Your task to perform on an android device: Open the stopwatch Image 0: 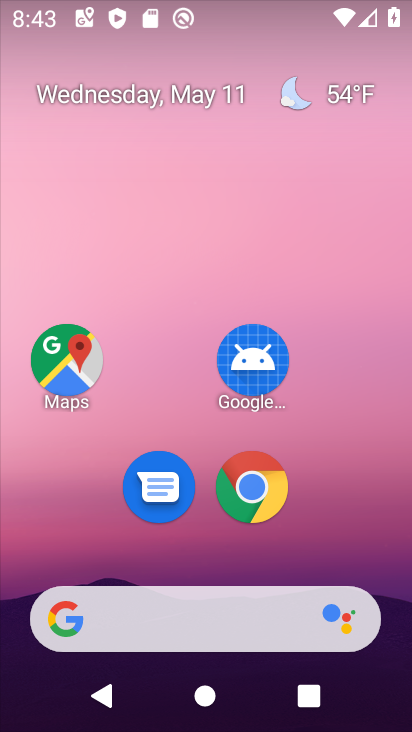
Step 0: drag from (73, 570) to (161, 133)
Your task to perform on an android device: Open the stopwatch Image 1: 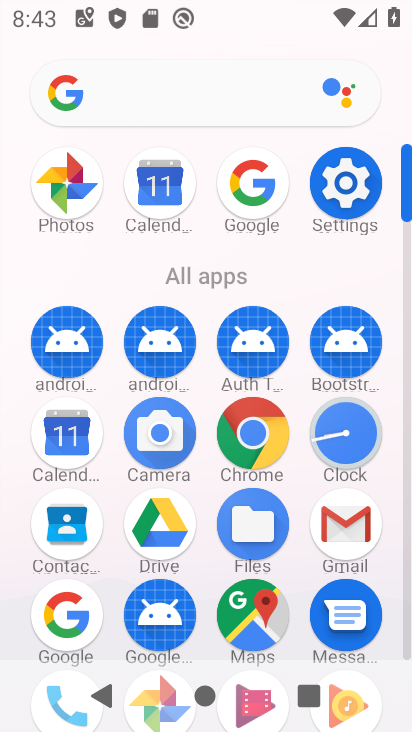
Step 1: click (357, 435)
Your task to perform on an android device: Open the stopwatch Image 2: 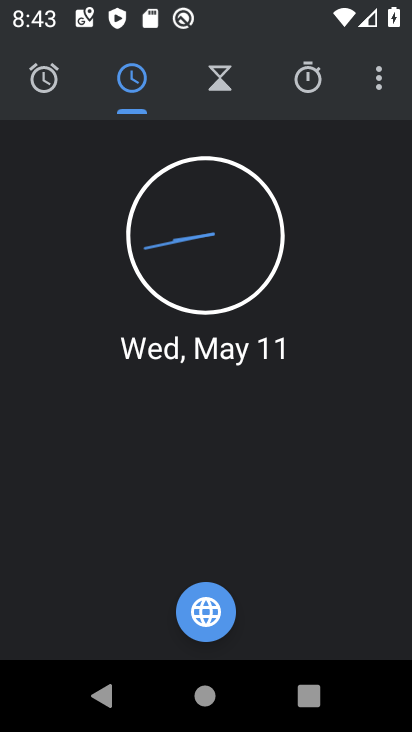
Step 2: click (304, 85)
Your task to perform on an android device: Open the stopwatch Image 3: 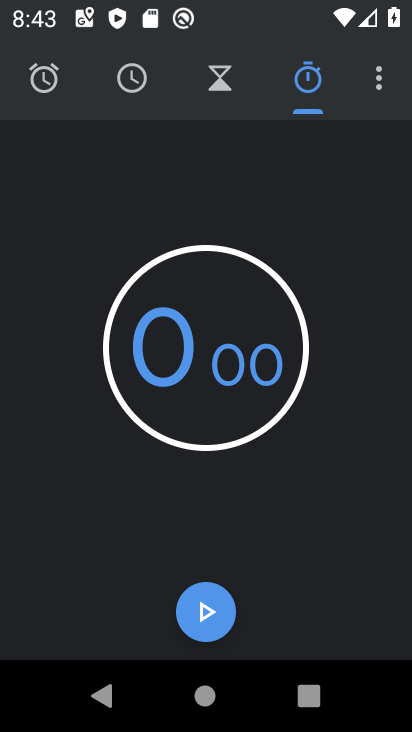
Step 3: task complete